Your task to perform on an android device: toggle notification dots Image 0: 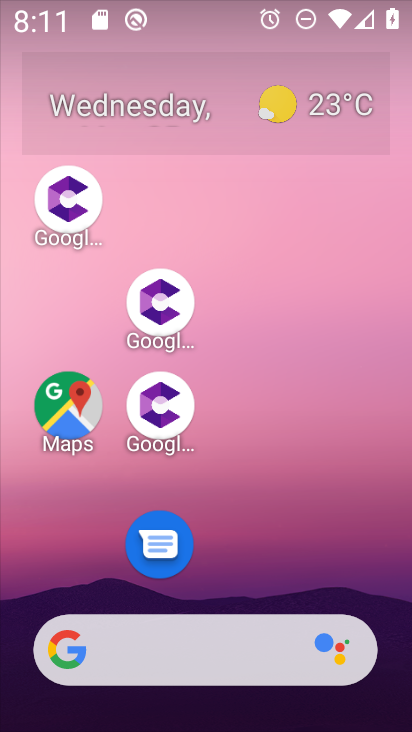
Step 0: drag from (283, 530) to (204, 32)
Your task to perform on an android device: toggle notification dots Image 1: 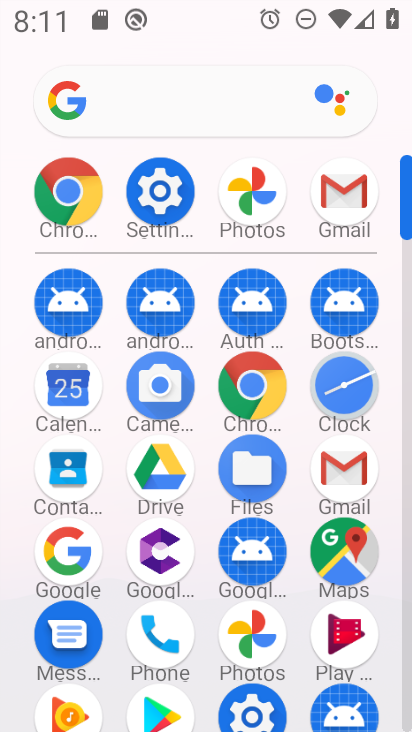
Step 1: click (155, 196)
Your task to perform on an android device: toggle notification dots Image 2: 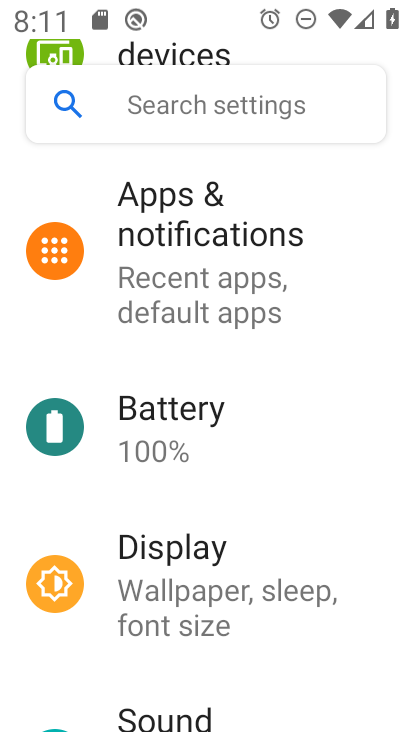
Step 2: click (194, 211)
Your task to perform on an android device: toggle notification dots Image 3: 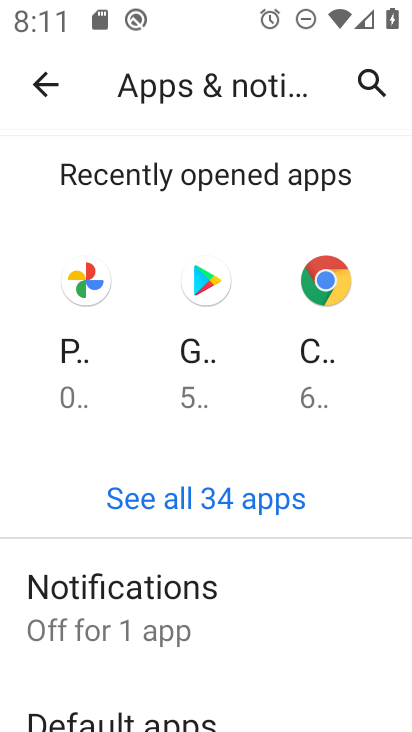
Step 3: click (104, 582)
Your task to perform on an android device: toggle notification dots Image 4: 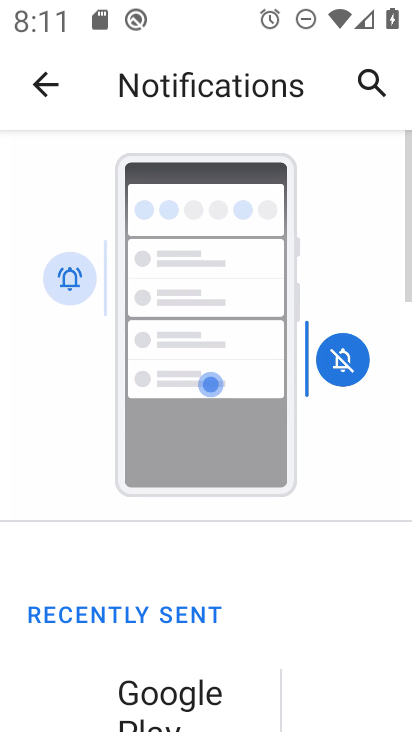
Step 4: drag from (269, 582) to (227, 129)
Your task to perform on an android device: toggle notification dots Image 5: 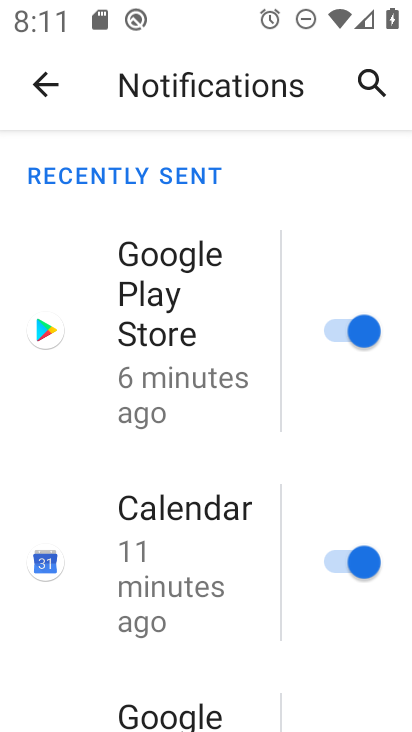
Step 5: drag from (315, 666) to (222, 188)
Your task to perform on an android device: toggle notification dots Image 6: 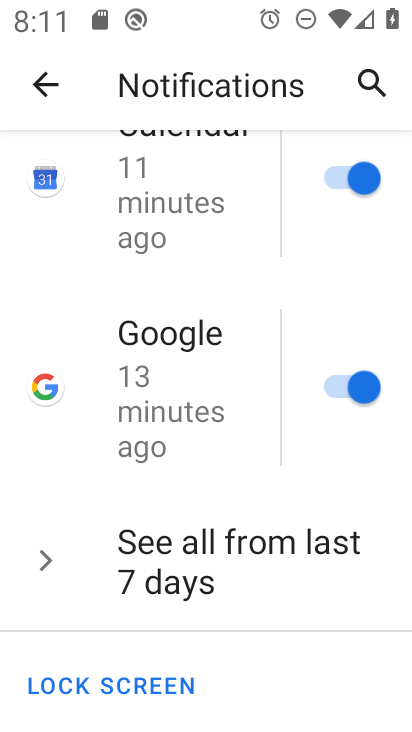
Step 6: drag from (253, 640) to (213, 221)
Your task to perform on an android device: toggle notification dots Image 7: 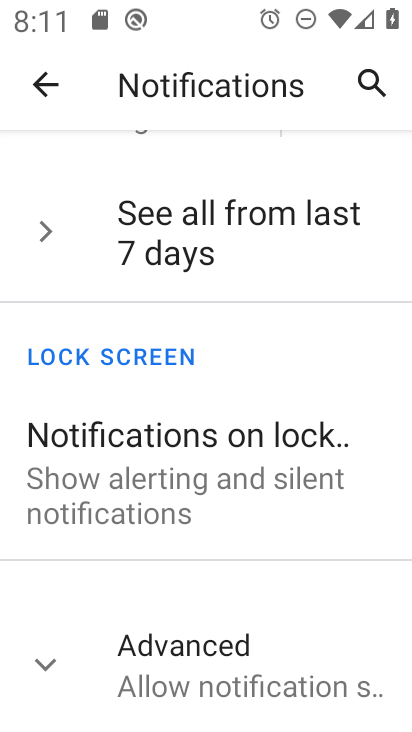
Step 7: click (52, 657)
Your task to perform on an android device: toggle notification dots Image 8: 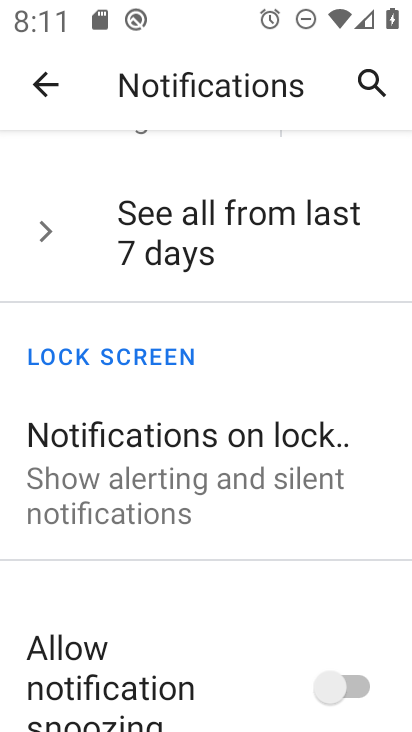
Step 8: drag from (348, 643) to (278, 271)
Your task to perform on an android device: toggle notification dots Image 9: 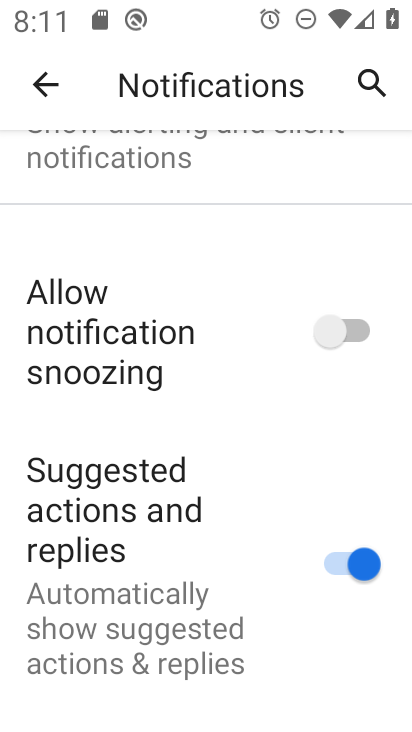
Step 9: drag from (273, 622) to (218, 233)
Your task to perform on an android device: toggle notification dots Image 10: 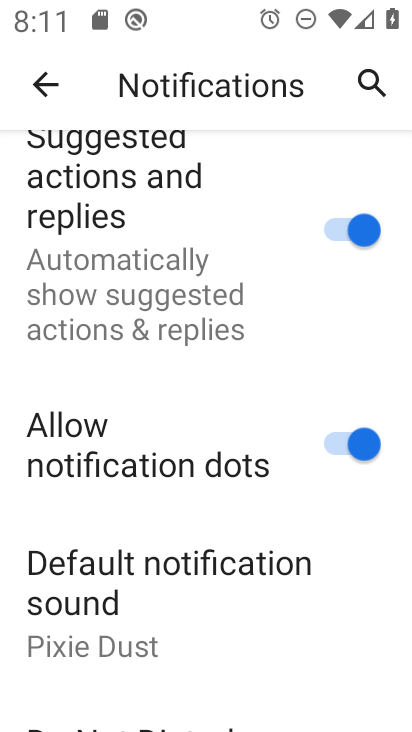
Step 10: click (344, 450)
Your task to perform on an android device: toggle notification dots Image 11: 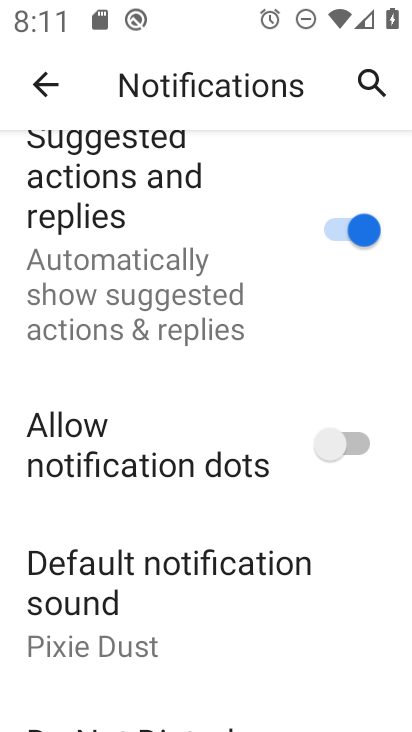
Step 11: task complete